Your task to perform on an android device: Open Google Chrome and click the shortcut for Amazon.com Image 0: 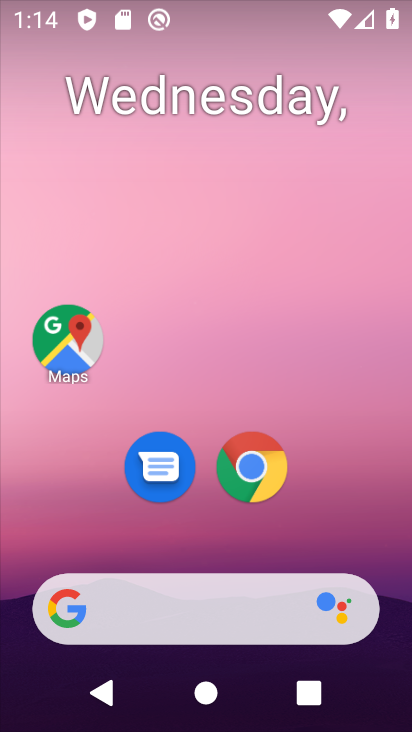
Step 0: click (266, 457)
Your task to perform on an android device: Open Google Chrome and click the shortcut for Amazon.com Image 1: 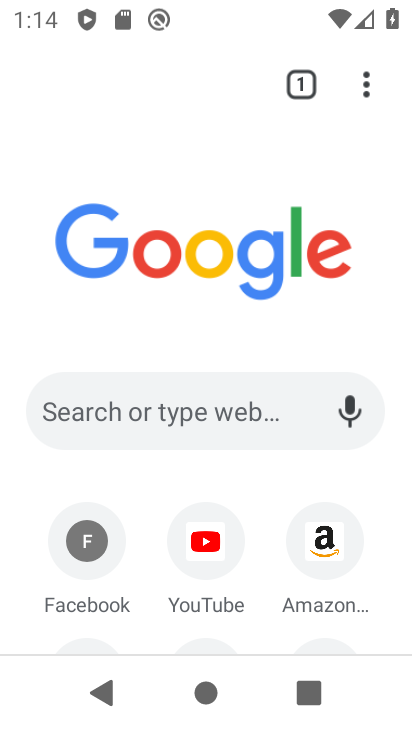
Step 1: click (342, 544)
Your task to perform on an android device: Open Google Chrome and click the shortcut for Amazon.com Image 2: 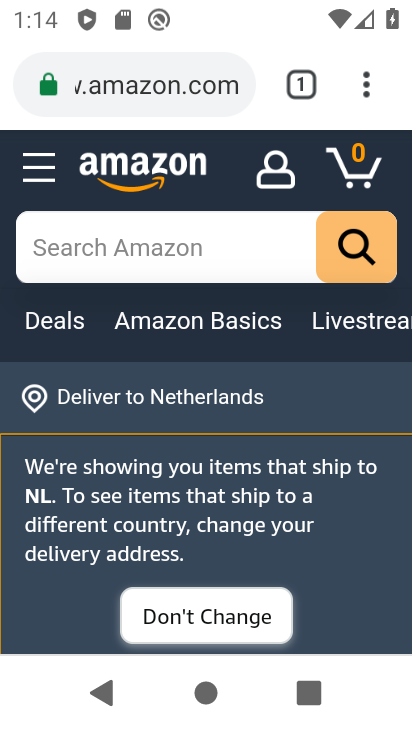
Step 2: task complete